Your task to perform on an android device: Search for seafood restaurants on Google Maps Image 0: 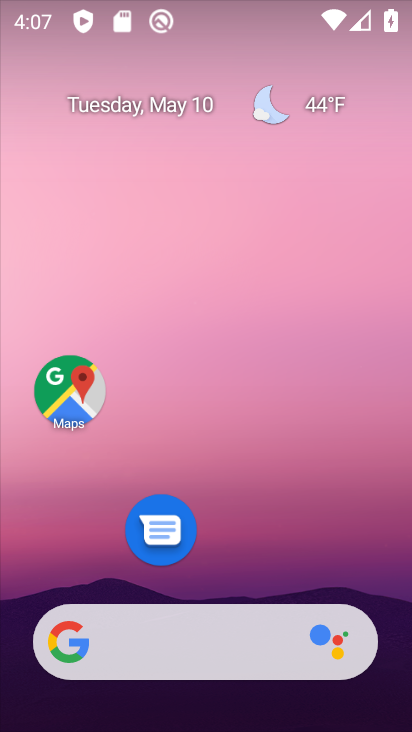
Step 0: click (73, 385)
Your task to perform on an android device: Search for seafood restaurants on Google Maps Image 1: 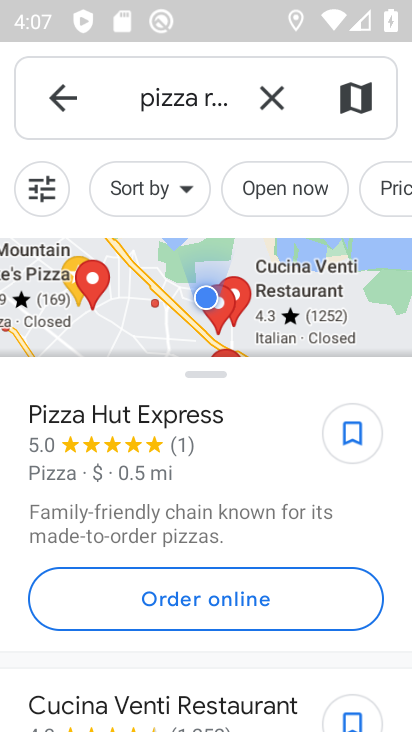
Step 1: click (265, 101)
Your task to perform on an android device: Search for seafood restaurants on Google Maps Image 2: 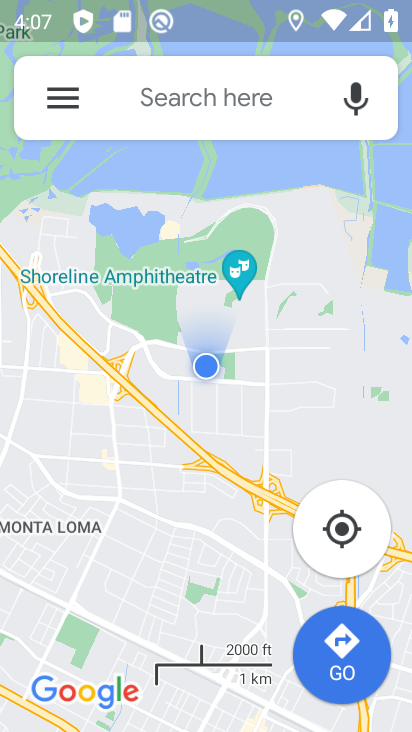
Step 2: click (194, 98)
Your task to perform on an android device: Search for seafood restaurants on Google Maps Image 3: 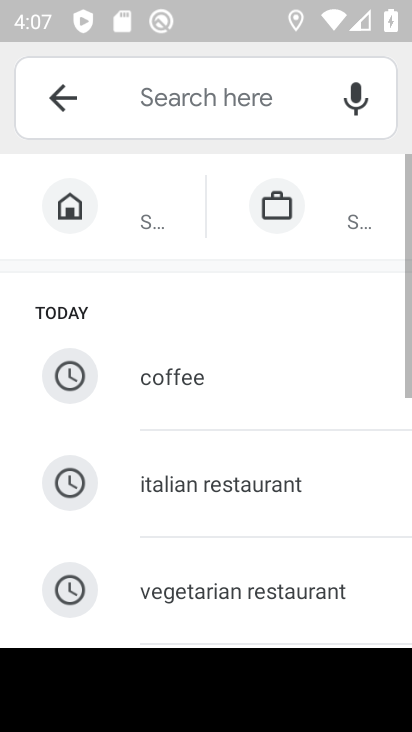
Step 3: drag from (208, 578) to (303, 201)
Your task to perform on an android device: Search for seafood restaurants on Google Maps Image 4: 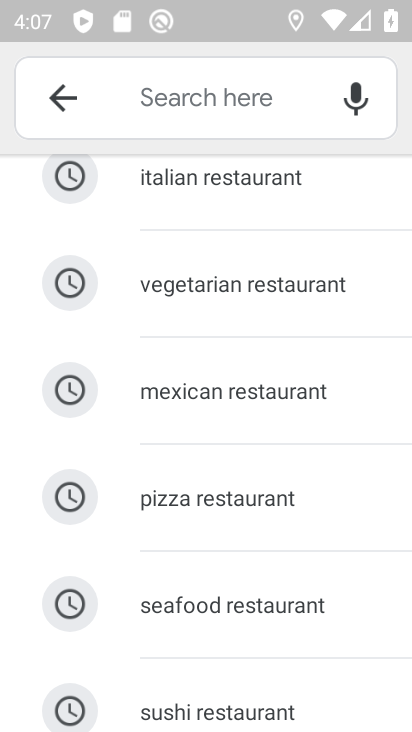
Step 4: click (200, 596)
Your task to perform on an android device: Search for seafood restaurants on Google Maps Image 5: 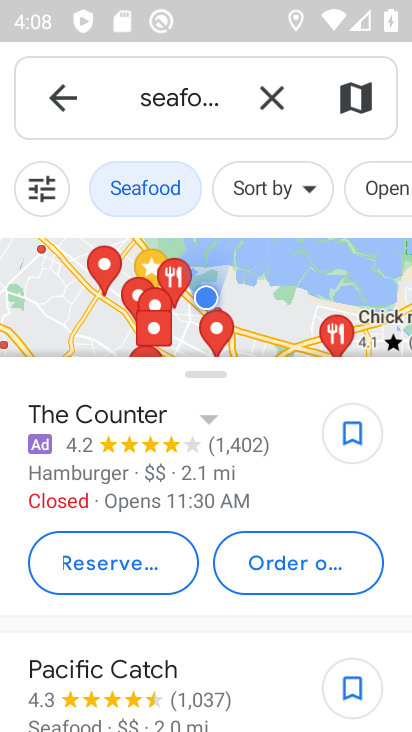
Step 5: task complete